Your task to perform on an android device: Open Android settings Image 0: 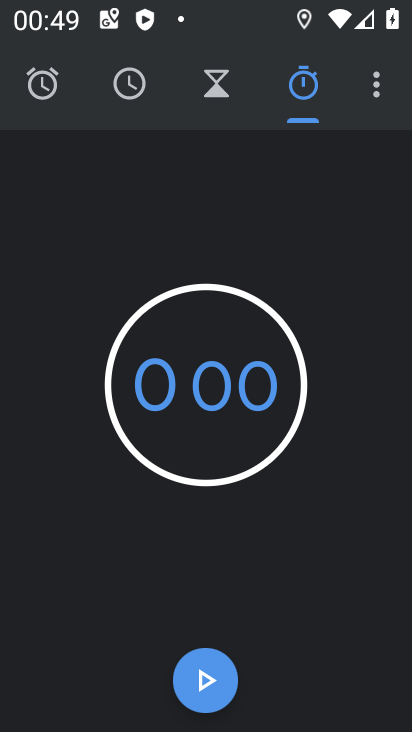
Step 0: drag from (377, 534) to (375, 433)
Your task to perform on an android device: Open Android settings Image 1: 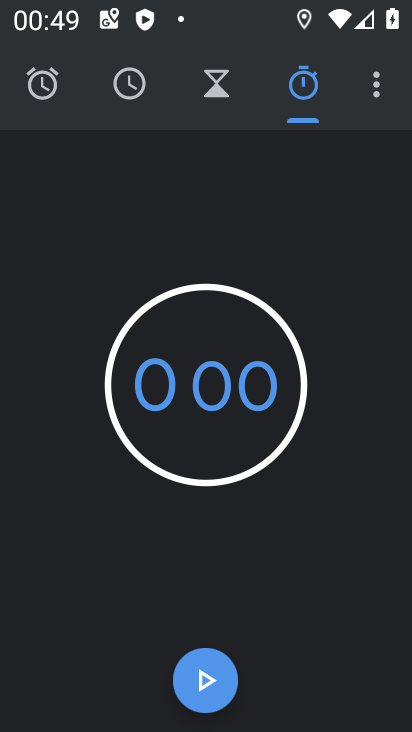
Step 1: press home button
Your task to perform on an android device: Open Android settings Image 2: 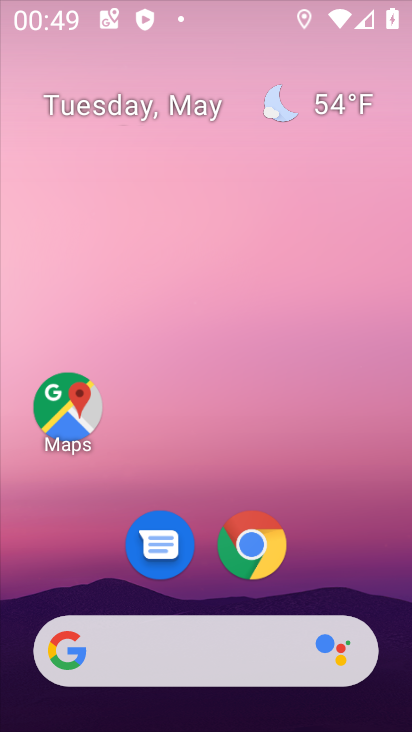
Step 2: drag from (368, 624) to (387, 211)
Your task to perform on an android device: Open Android settings Image 3: 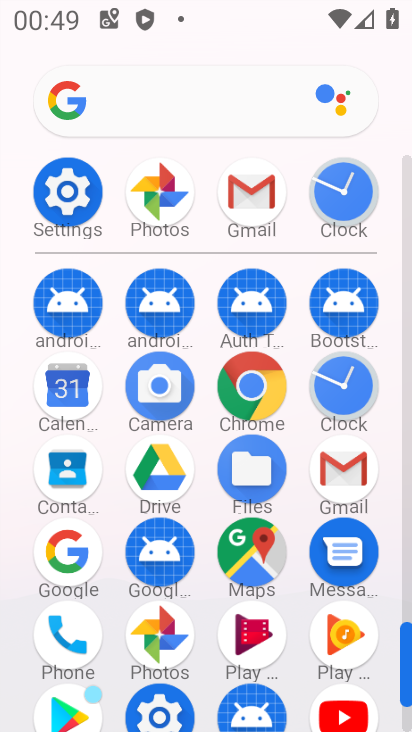
Step 3: click (77, 205)
Your task to perform on an android device: Open Android settings Image 4: 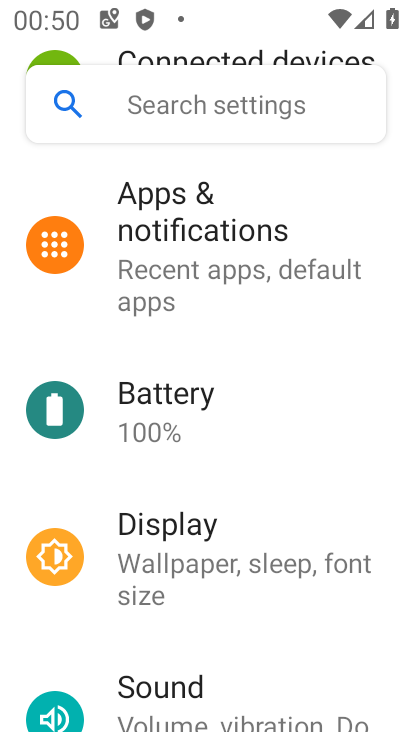
Step 4: task complete